Your task to perform on an android device: find photos in the google photos app Image 0: 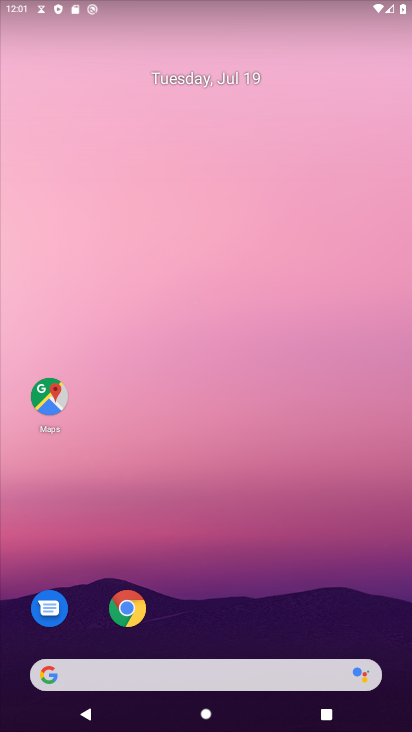
Step 0: drag from (267, 631) to (335, 4)
Your task to perform on an android device: find photos in the google photos app Image 1: 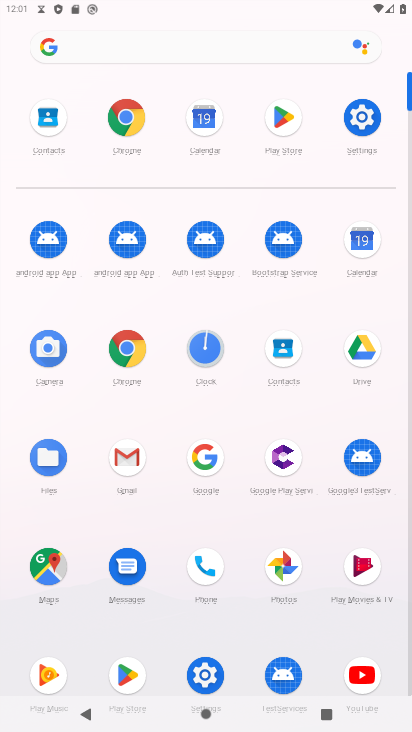
Step 1: click (289, 568)
Your task to perform on an android device: find photos in the google photos app Image 2: 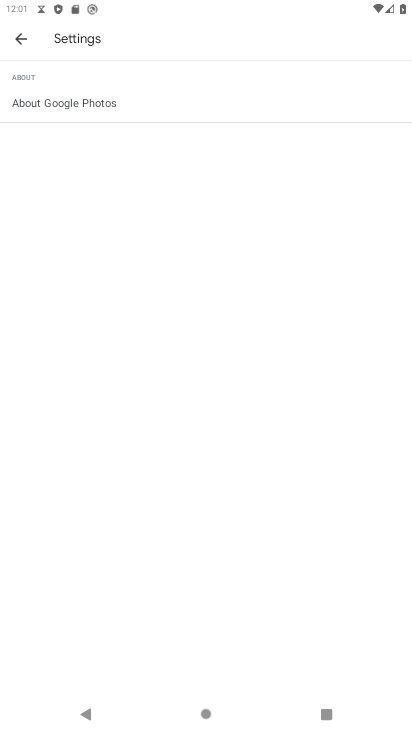
Step 2: press back button
Your task to perform on an android device: find photos in the google photos app Image 3: 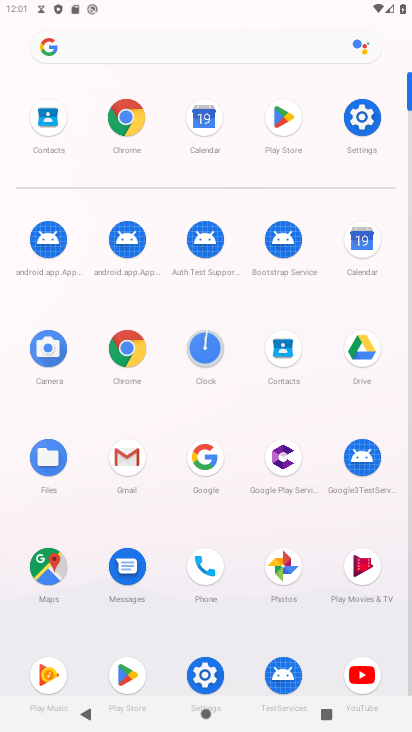
Step 3: click (294, 563)
Your task to perform on an android device: find photos in the google photos app Image 4: 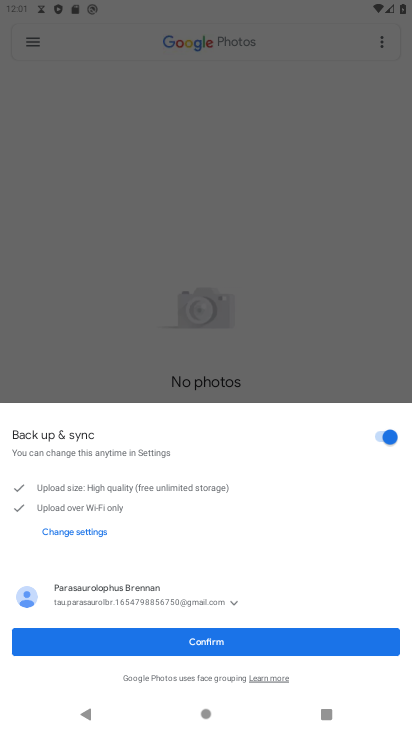
Step 4: click (215, 644)
Your task to perform on an android device: find photos in the google photos app Image 5: 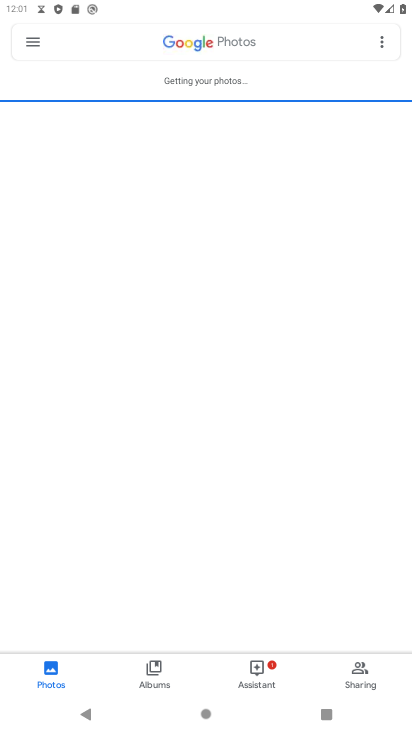
Step 5: task complete